Your task to perform on an android device: allow notifications from all sites in the chrome app Image 0: 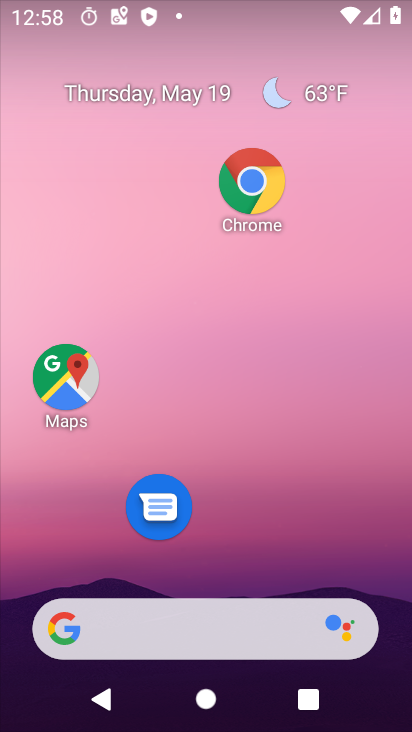
Step 0: click (260, 199)
Your task to perform on an android device: allow notifications from all sites in the chrome app Image 1: 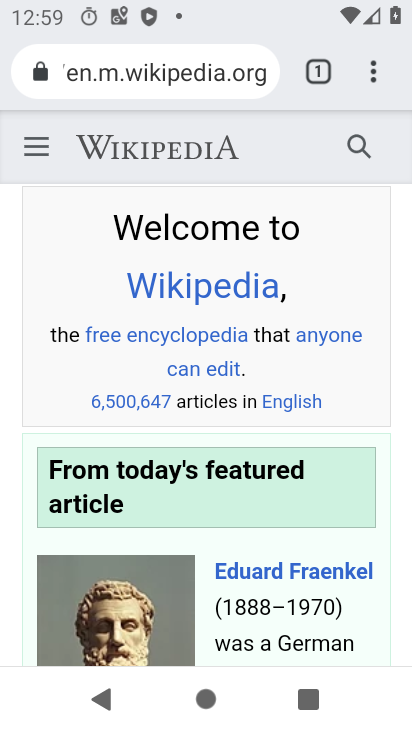
Step 1: click (378, 71)
Your task to perform on an android device: allow notifications from all sites in the chrome app Image 2: 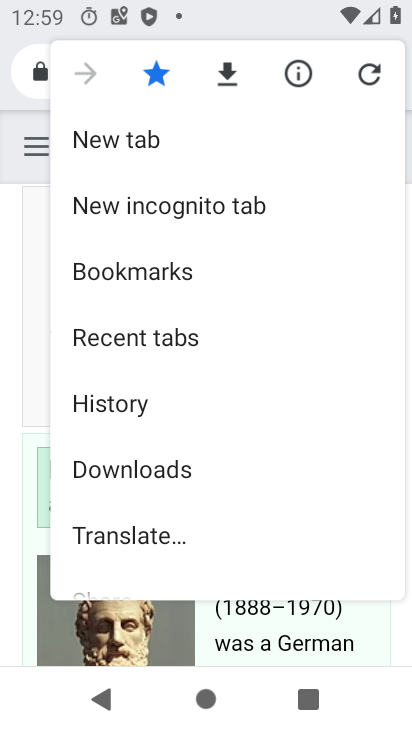
Step 2: drag from (176, 505) to (199, 222)
Your task to perform on an android device: allow notifications from all sites in the chrome app Image 3: 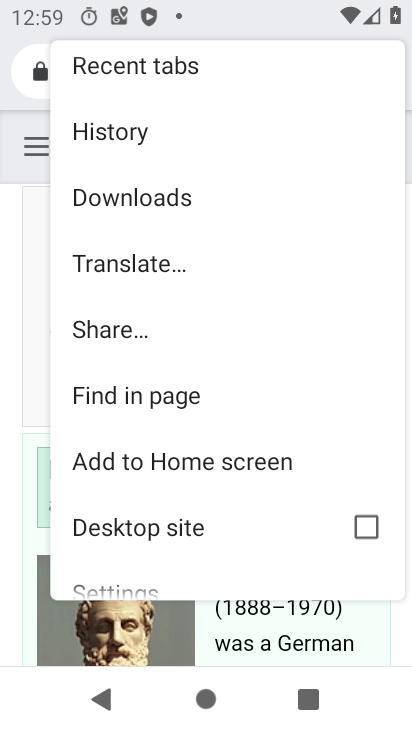
Step 3: drag from (147, 549) to (164, 213)
Your task to perform on an android device: allow notifications from all sites in the chrome app Image 4: 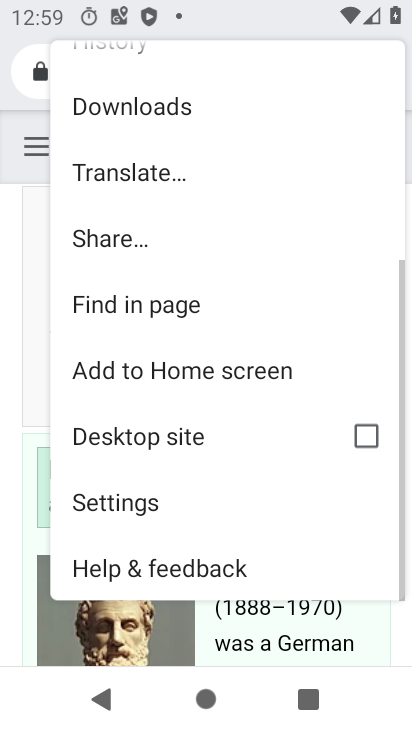
Step 4: click (130, 520)
Your task to perform on an android device: allow notifications from all sites in the chrome app Image 5: 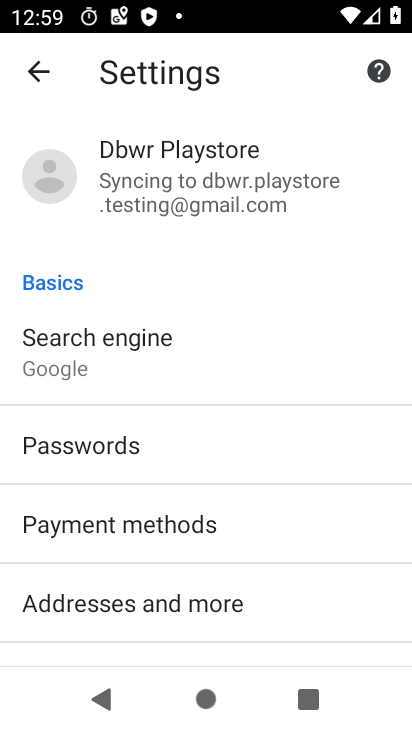
Step 5: drag from (169, 577) to (193, 169)
Your task to perform on an android device: allow notifications from all sites in the chrome app Image 6: 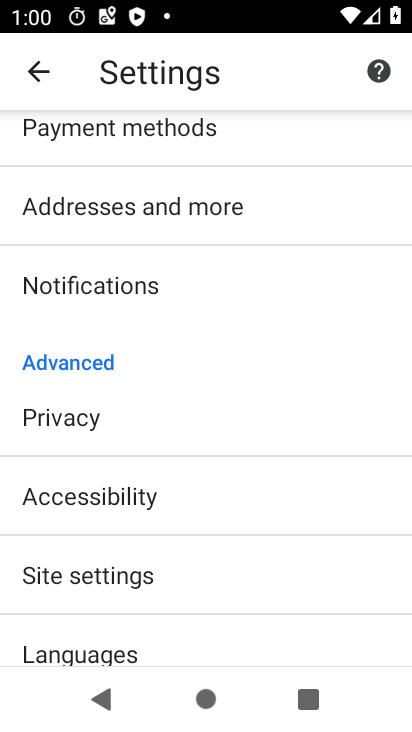
Step 6: drag from (137, 633) to (210, 270)
Your task to perform on an android device: allow notifications from all sites in the chrome app Image 7: 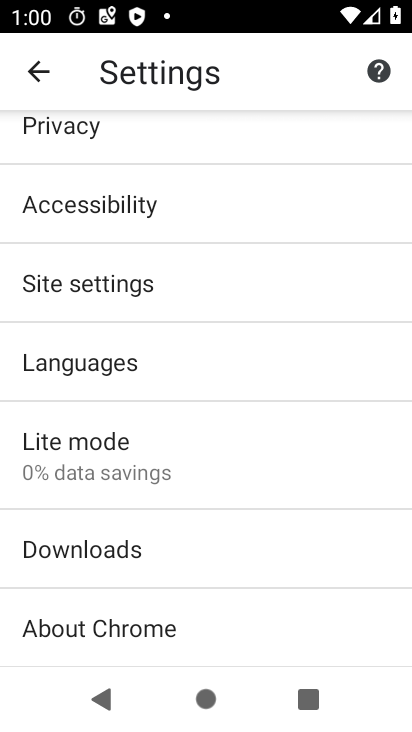
Step 7: drag from (208, 307) to (245, 206)
Your task to perform on an android device: allow notifications from all sites in the chrome app Image 8: 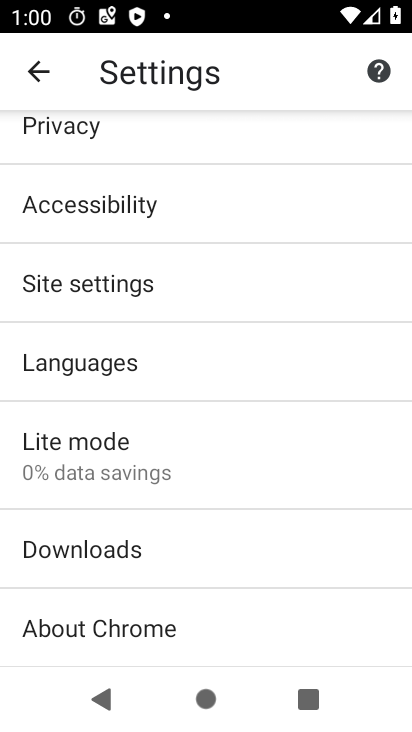
Step 8: click (107, 295)
Your task to perform on an android device: allow notifications from all sites in the chrome app Image 9: 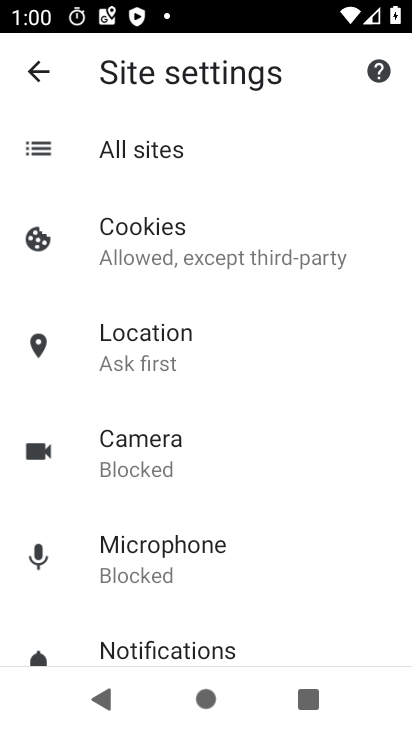
Step 9: click (181, 645)
Your task to perform on an android device: allow notifications from all sites in the chrome app Image 10: 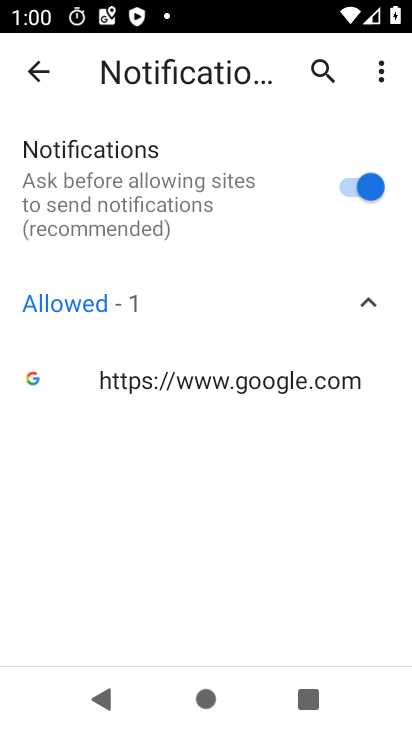
Step 10: task complete